Your task to perform on an android device: Open Google Image 0: 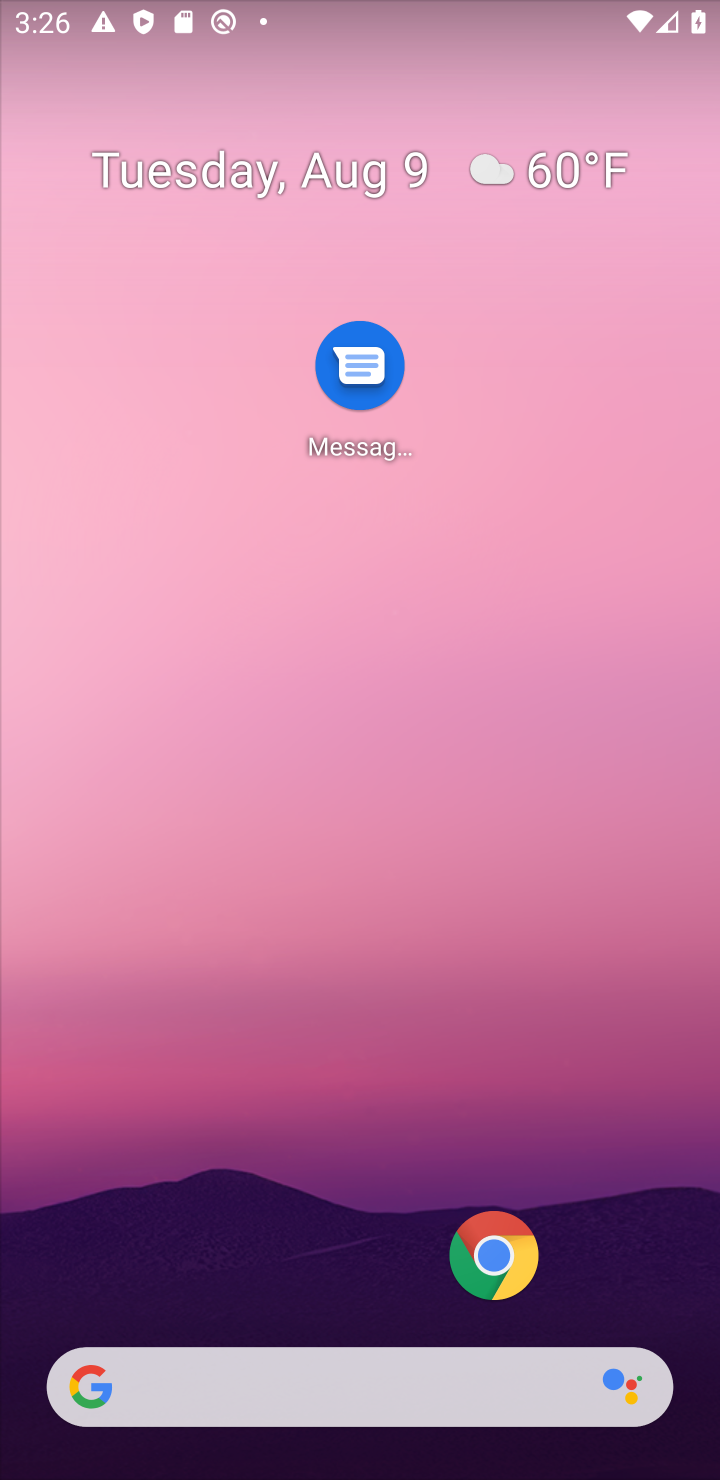
Step 0: drag from (467, 1292) to (529, 399)
Your task to perform on an android device: Open Google Image 1: 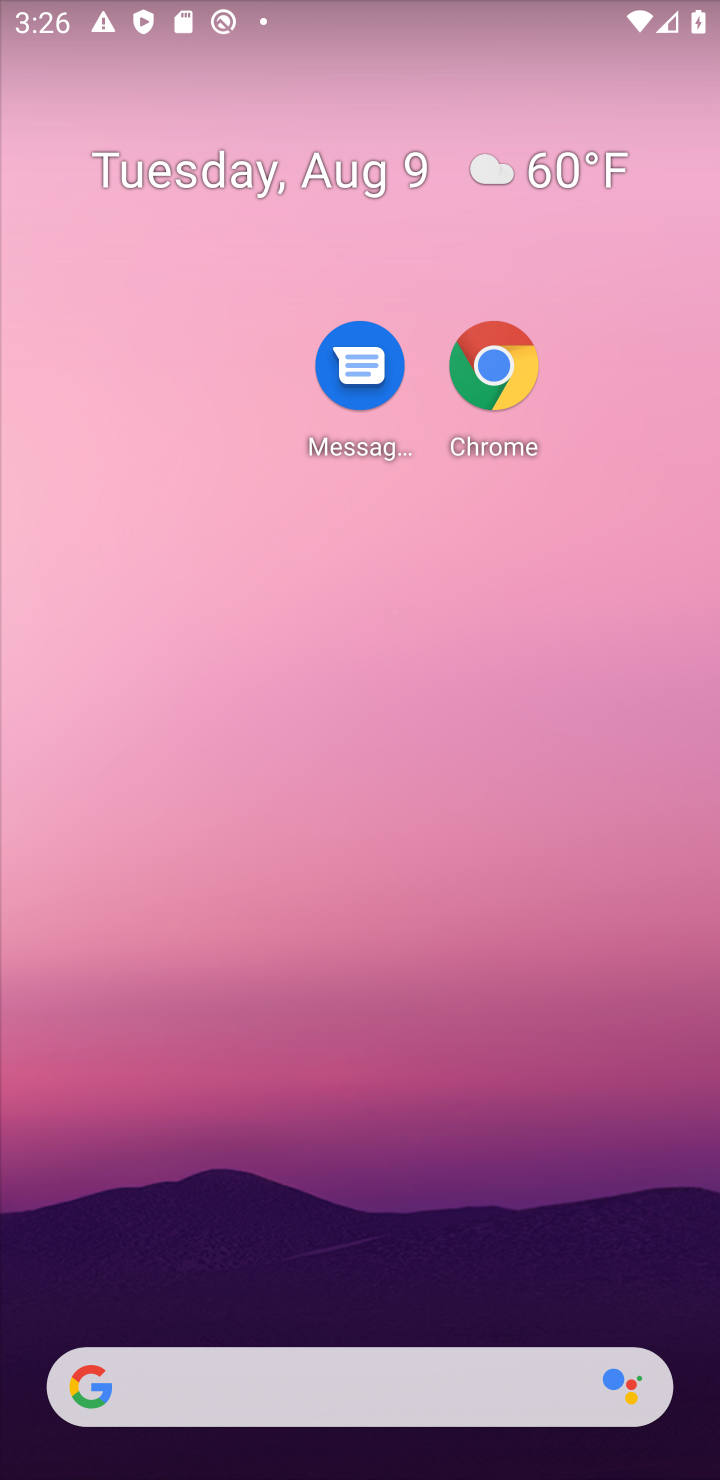
Step 1: drag from (311, 1262) to (313, 360)
Your task to perform on an android device: Open Google Image 2: 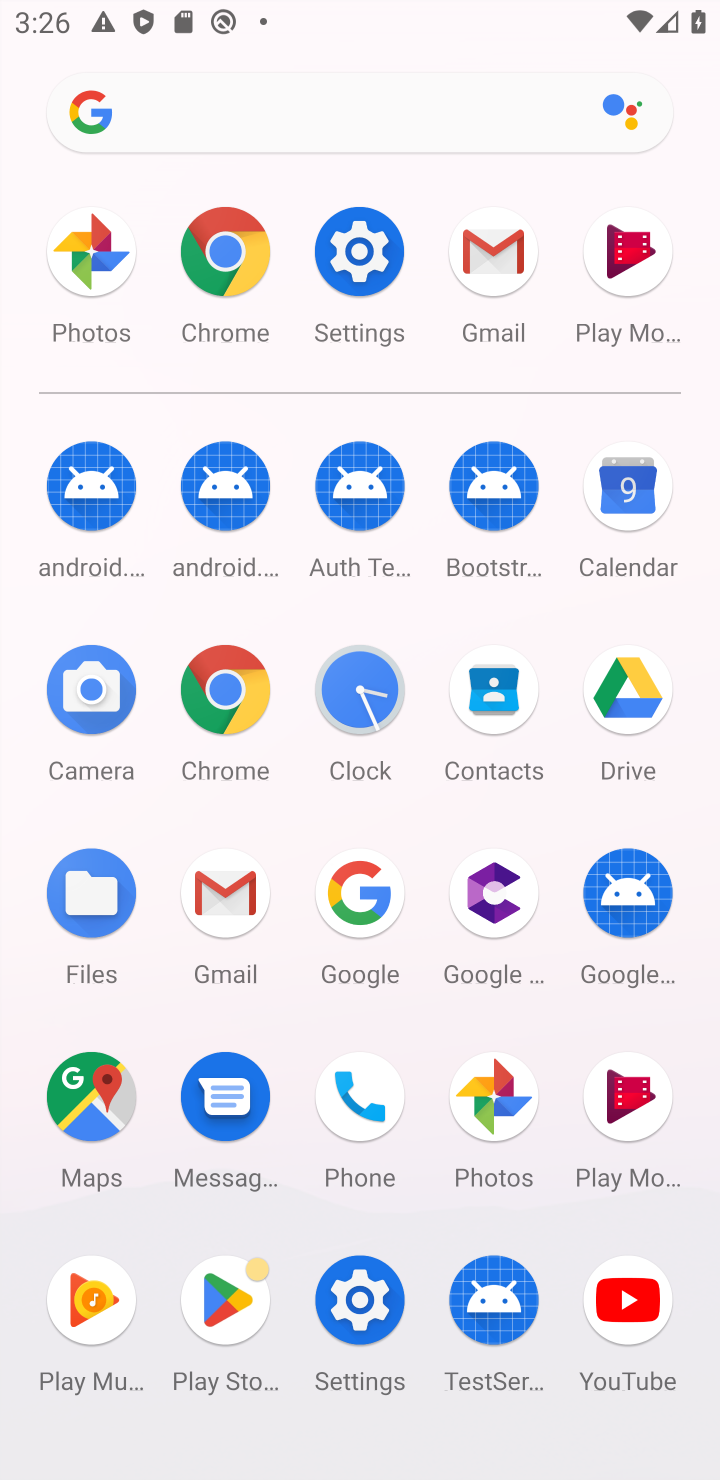
Step 2: click (369, 889)
Your task to perform on an android device: Open Google Image 3: 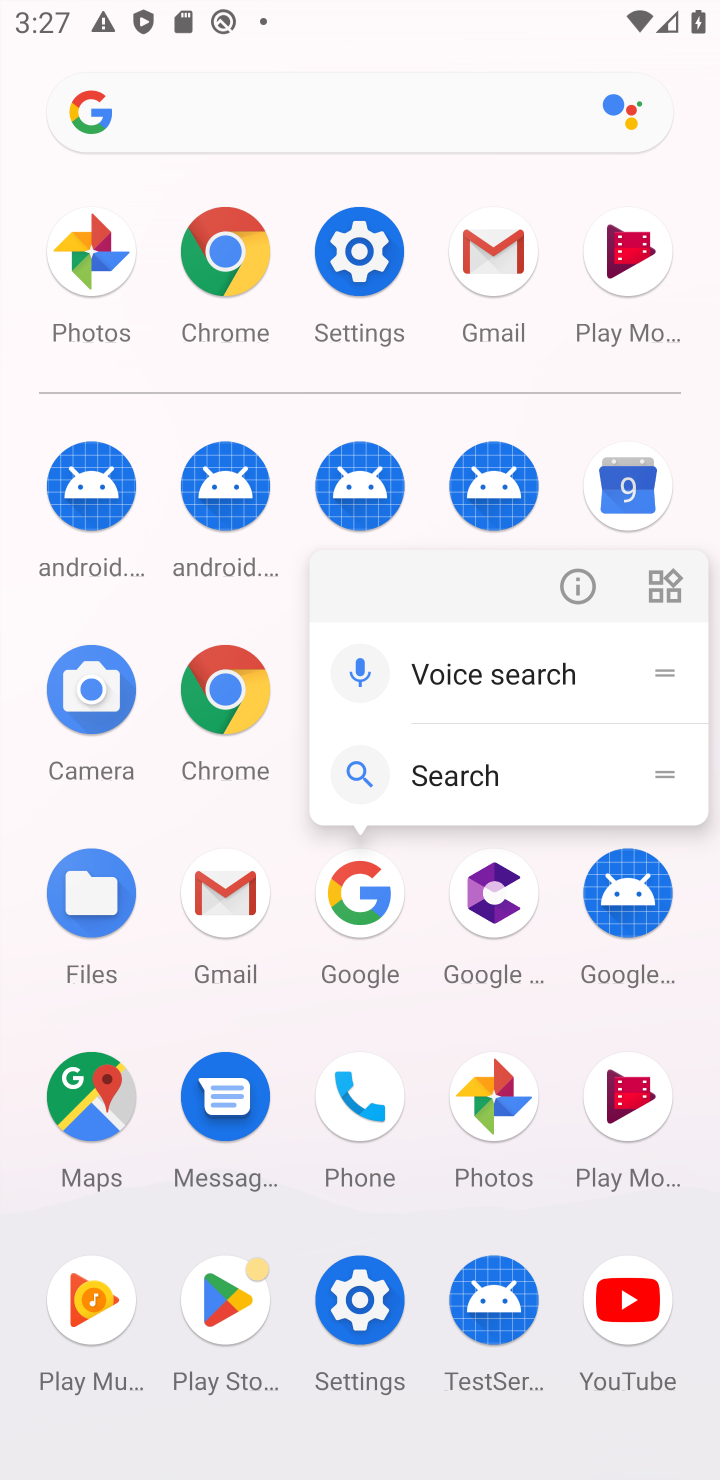
Step 3: click (358, 889)
Your task to perform on an android device: Open Google Image 4: 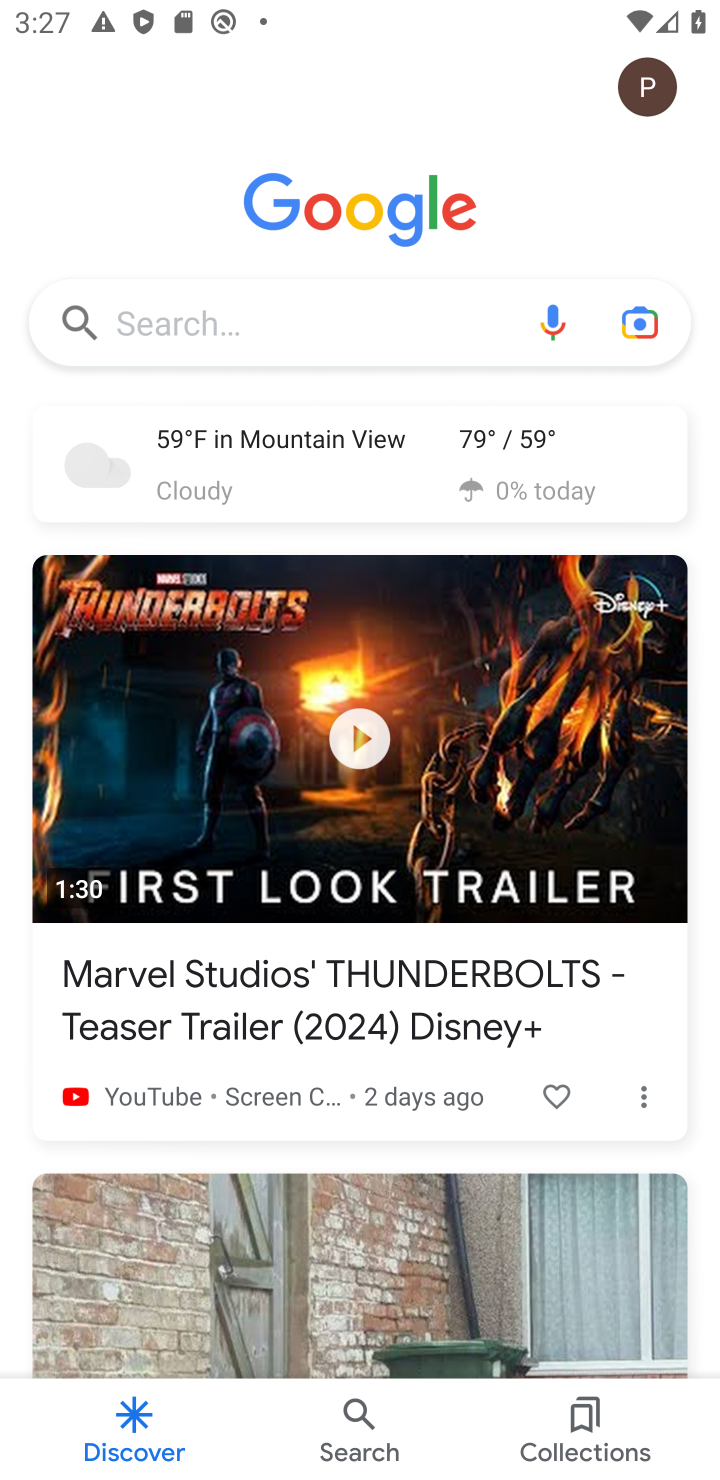
Step 4: task complete